Your task to perform on an android device: turn notification dots on Image 0: 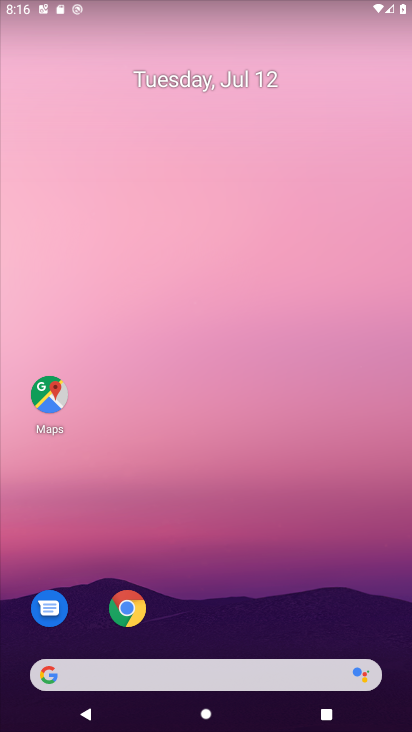
Step 0: drag from (179, 681) to (344, 230)
Your task to perform on an android device: turn notification dots on Image 1: 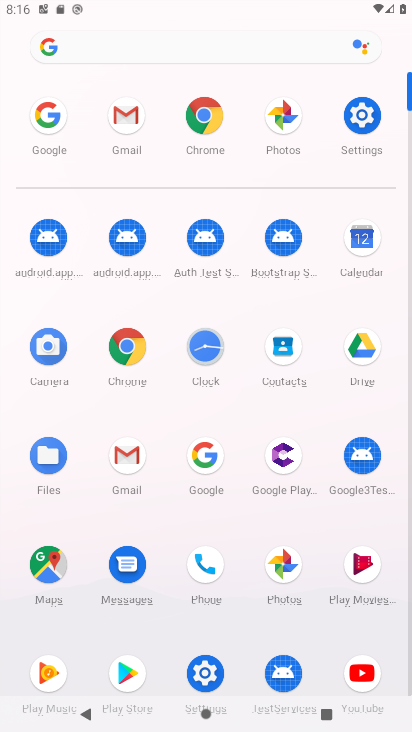
Step 1: click (367, 116)
Your task to perform on an android device: turn notification dots on Image 2: 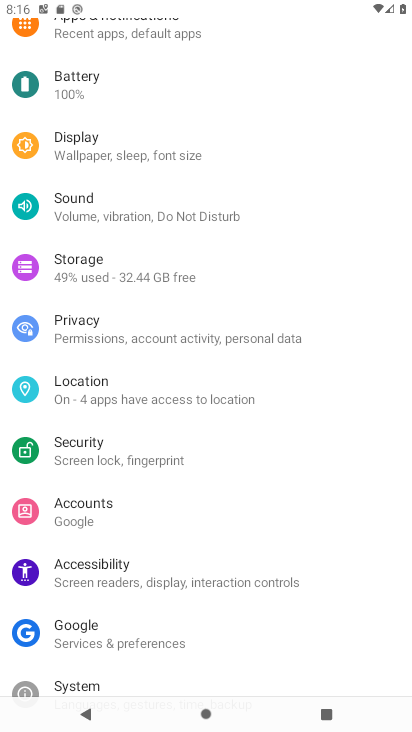
Step 2: drag from (235, 122) to (212, 546)
Your task to perform on an android device: turn notification dots on Image 3: 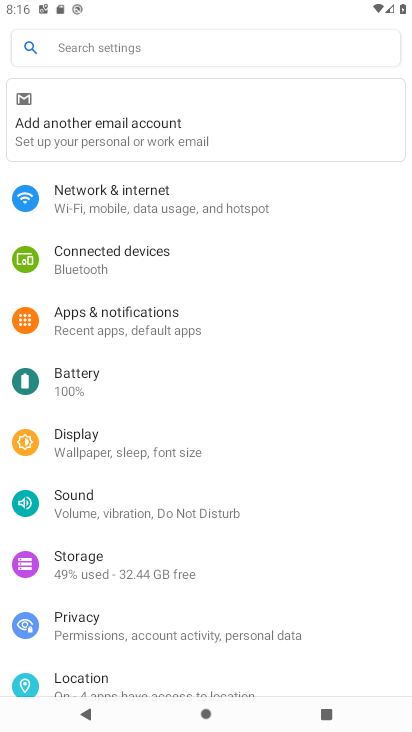
Step 3: click (134, 318)
Your task to perform on an android device: turn notification dots on Image 4: 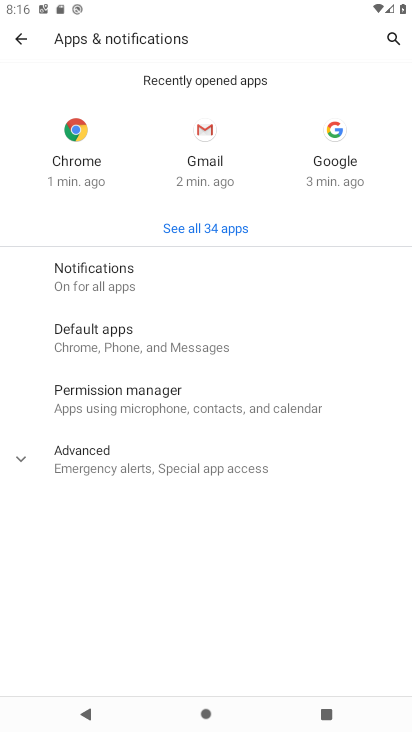
Step 4: click (76, 278)
Your task to perform on an android device: turn notification dots on Image 5: 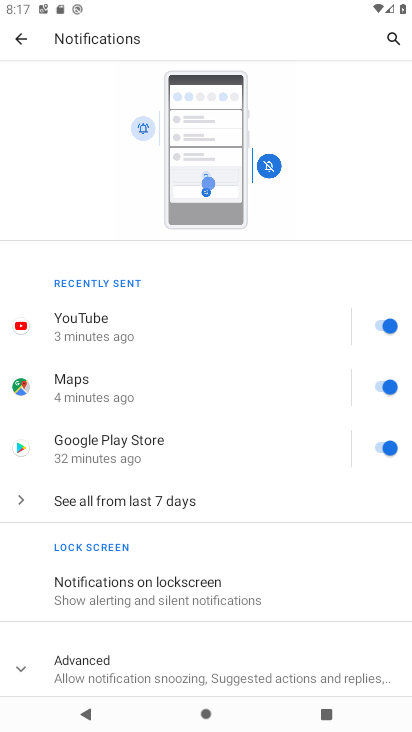
Step 5: drag from (254, 531) to (299, 166)
Your task to perform on an android device: turn notification dots on Image 6: 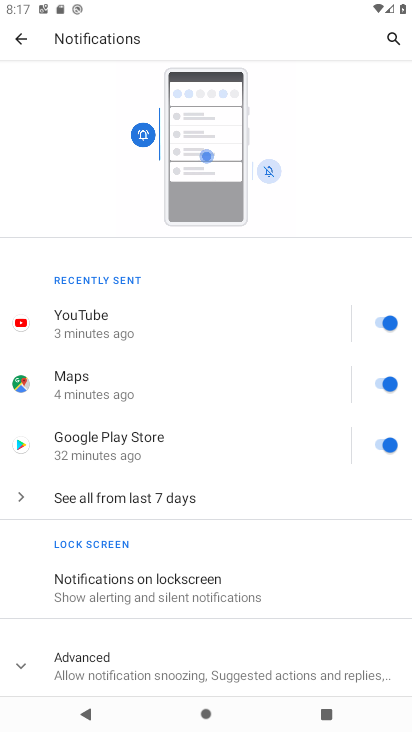
Step 6: click (126, 670)
Your task to perform on an android device: turn notification dots on Image 7: 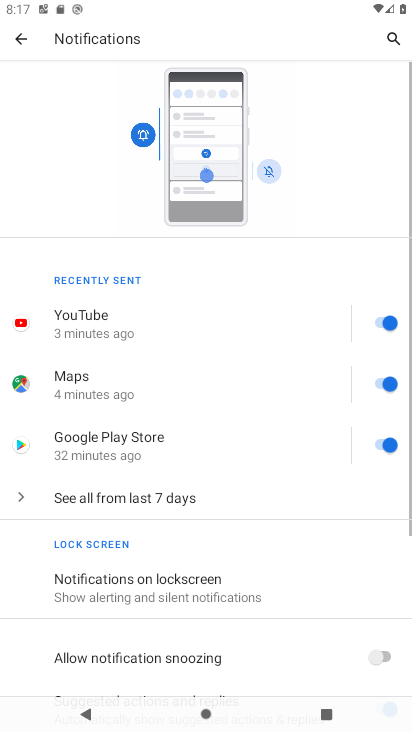
Step 7: task complete